Your task to perform on an android device: toggle notifications settings in the gmail app Image 0: 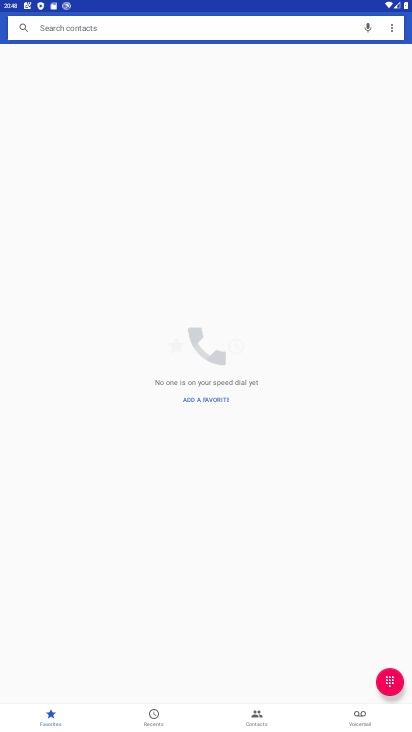
Step 0: press home button
Your task to perform on an android device: toggle notifications settings in the gmail app Image 1: 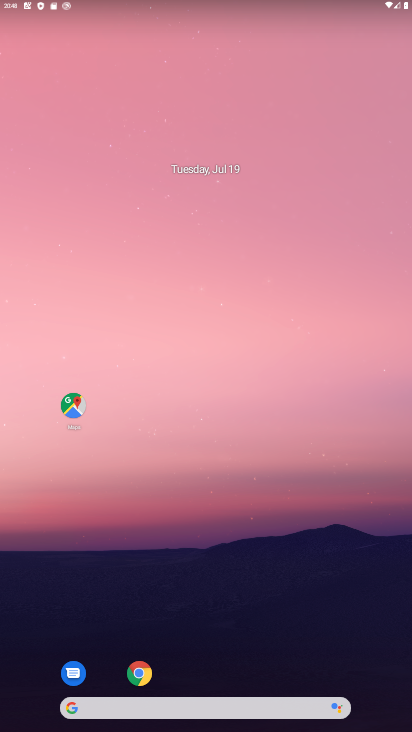
Step 1: drag from (228, 653) to (170, 4)
Your task to perform on an android device: toggle notifications settings in the gmail app Image 2: 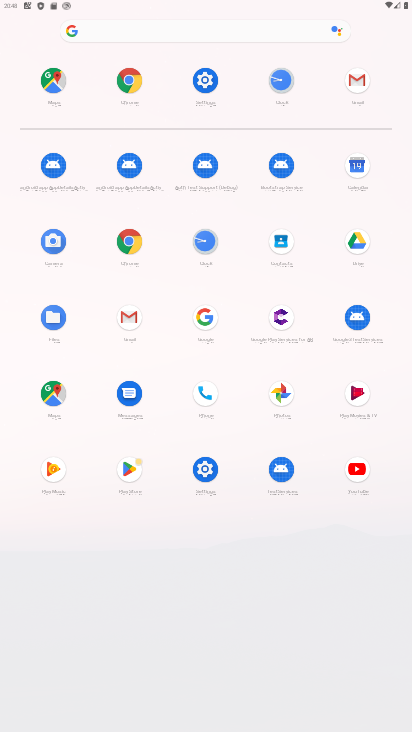
Step 2: click (130, 331)
Your task to perform on an android device: toggle notifications settings in the gmail app Image 3: 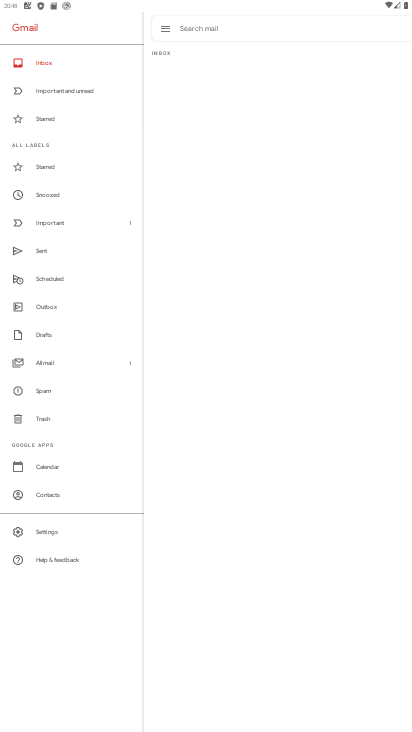
Step 3: click (40, 536)
Your task to perform on an android device: toggle notifications settings in the gmail app Image 4: 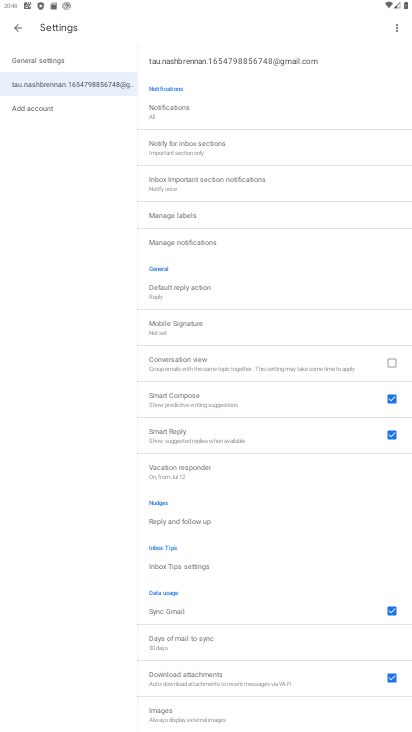
Step 4: click (61, 58)
Your task to perform on an android device: toggle notifications settings in the gmail app Image 5: 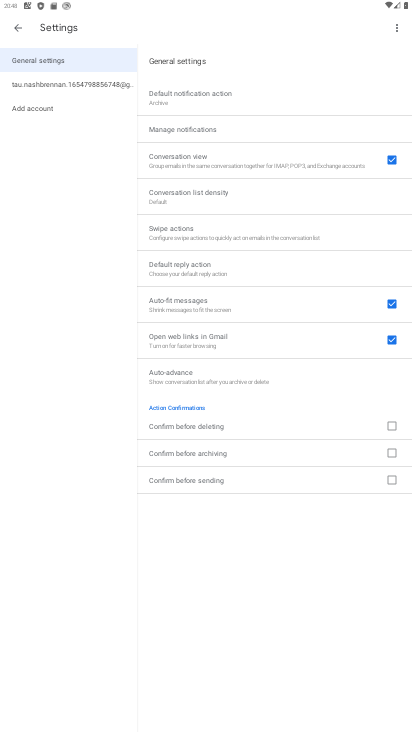
Step 5: click (208, 132)
Your task to perform on an android device: toggle notifications settings in the gmail app Image 6: 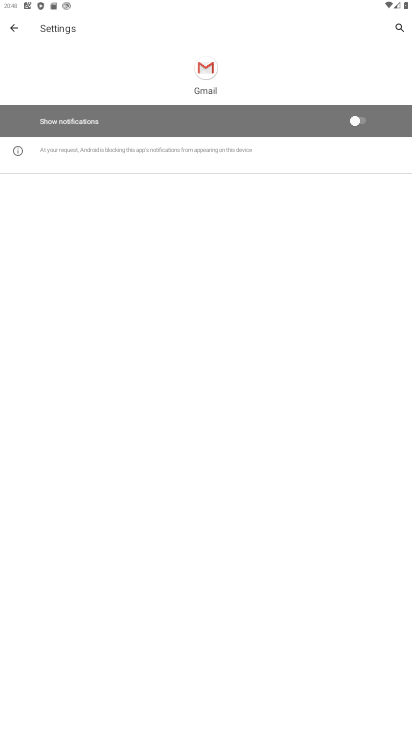
Step 6: click (338, 120)
Your task to perform on an android device: toggle notifications settings in the gmail app Image 7: 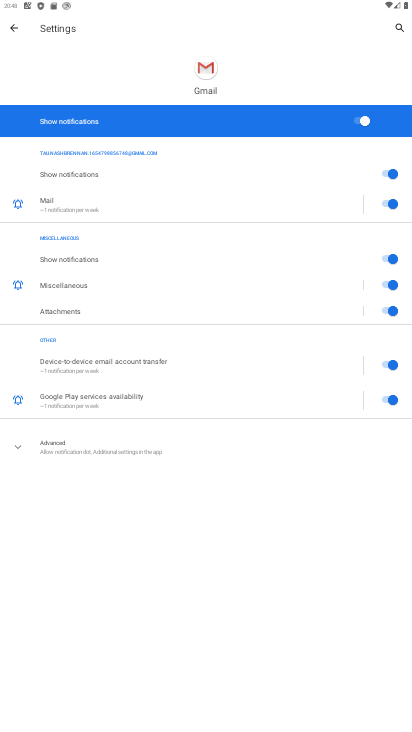
Step 7: task complete